Your task to perform on an android device: check battery use Image 0: 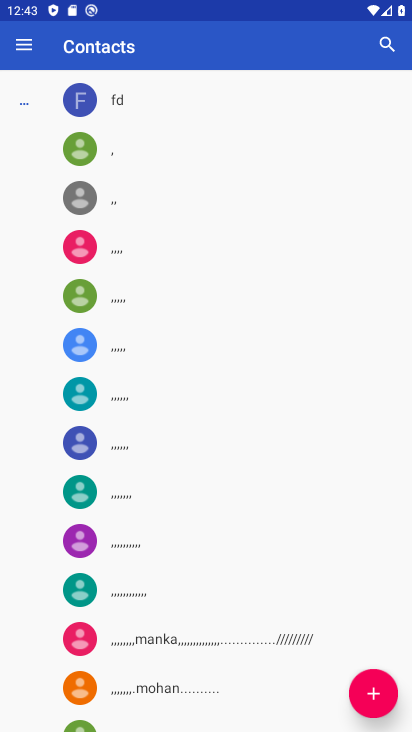
Step 0: press back button
Your task to perform on an android device: check battery use Image 1: 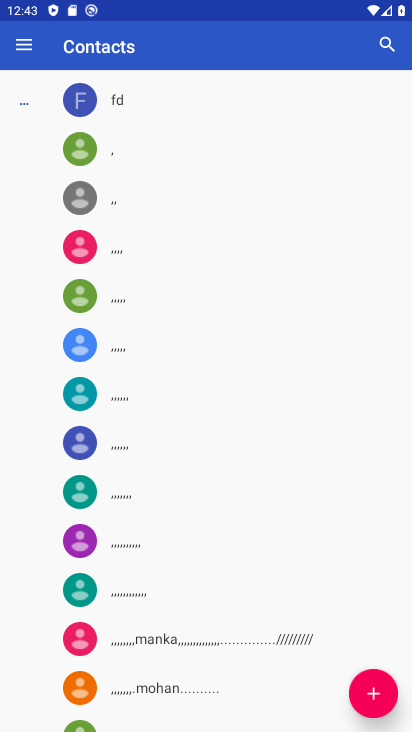
Step 1: press back button
Your task to perform on an android device: check battery use Image 2: 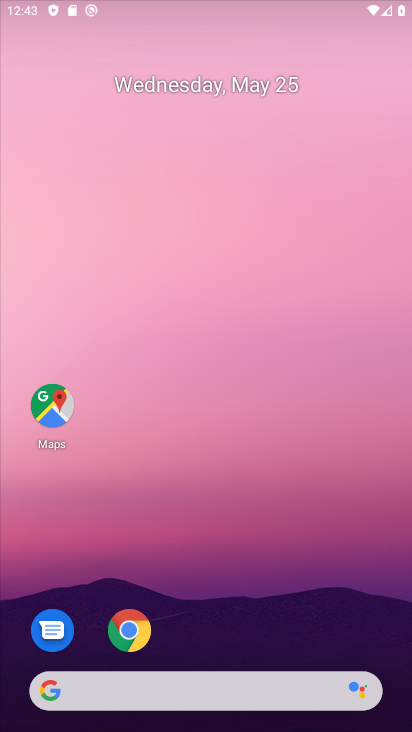
Step 2: press back button
Your task to perform on an android device: check battery use Image 3: 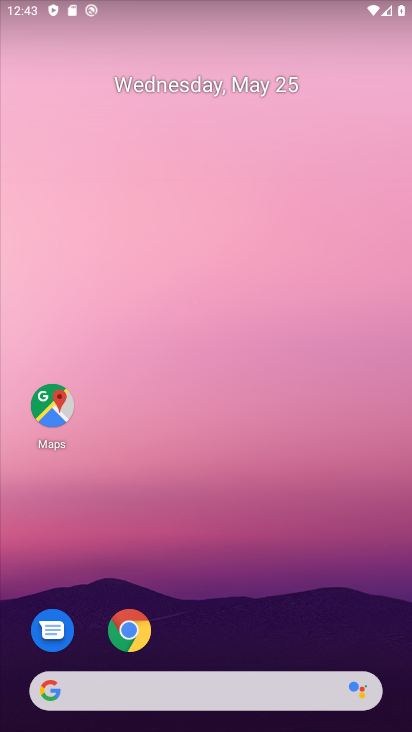
Step 3: drag from (272, 600) to (78, 4)
Your task to perform on an android device: check battery use Image 4: 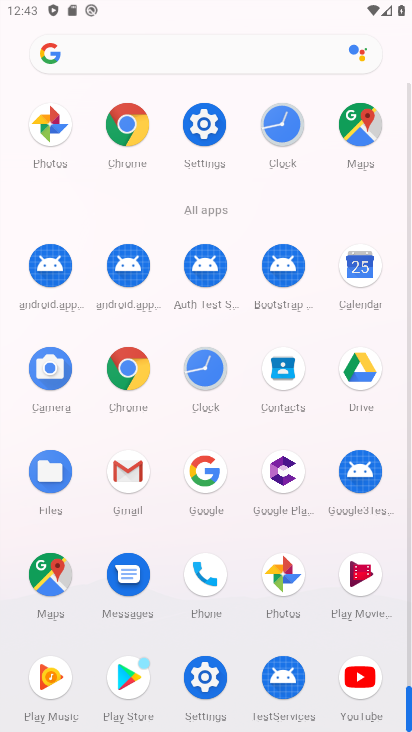
Step 4: click (197, 689)
Your task to perform on an android device: check battery use Image 5: 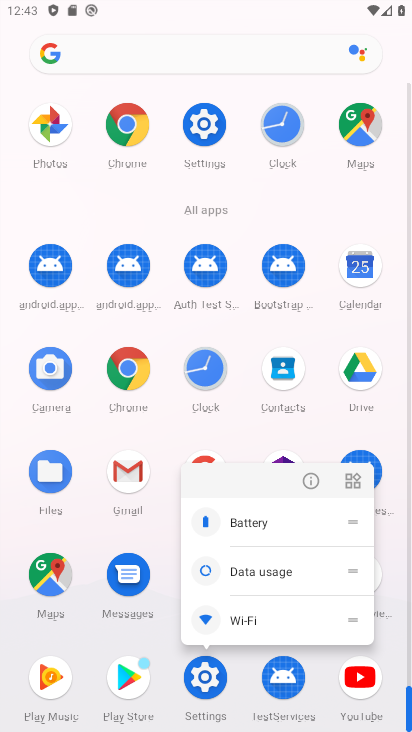
Step 5: click (196, 106)
Your task to perform on an android device: check battery use Image 6: 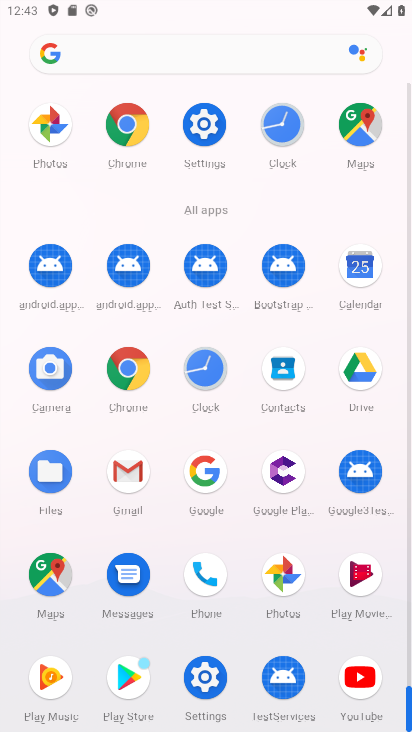
Step 6: click (190, 111)
Your task to perform on an android device: check battery use Image 7: 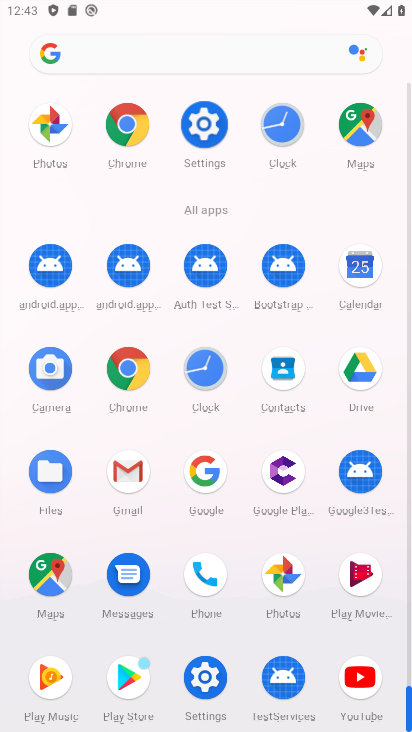
Step 7: click (189, 130)
Your task to perform on an android device: check battery use Image 8: 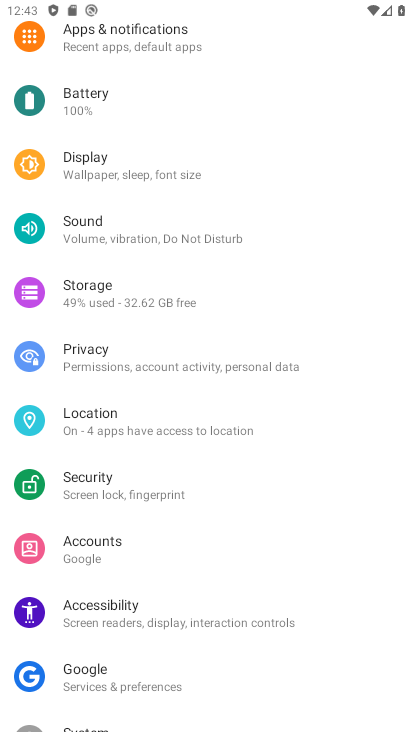
Step 8: click (78, 99)
Your task to perform on an android device: check battery use Image 9: 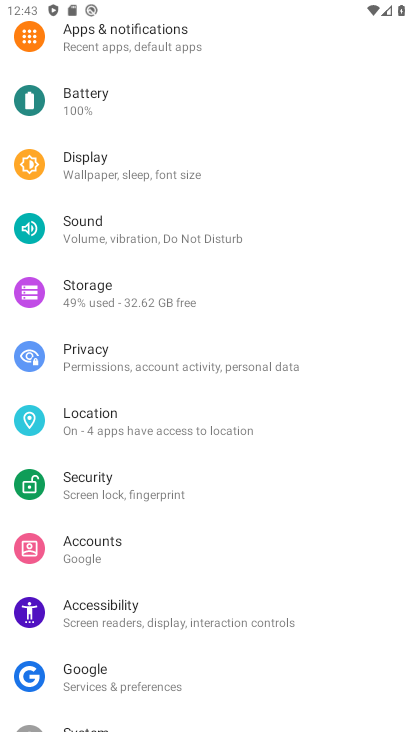
Step 9: click (87, 97)
Your task to perform on an android device: check battery use Image 10: 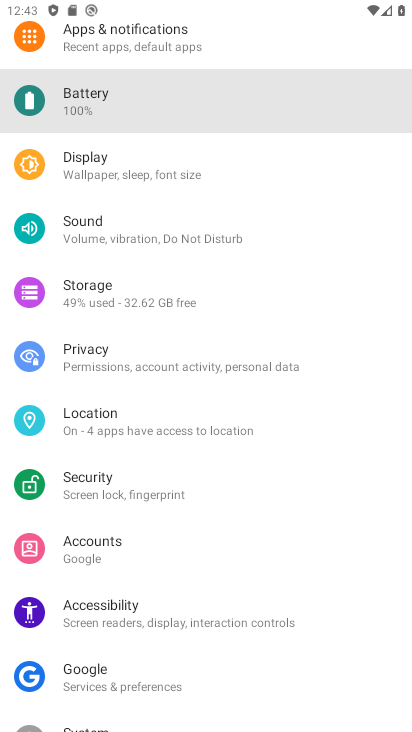
Step 10: click (90, 97)
Your task to perform on an android device: check battery use Image 11: 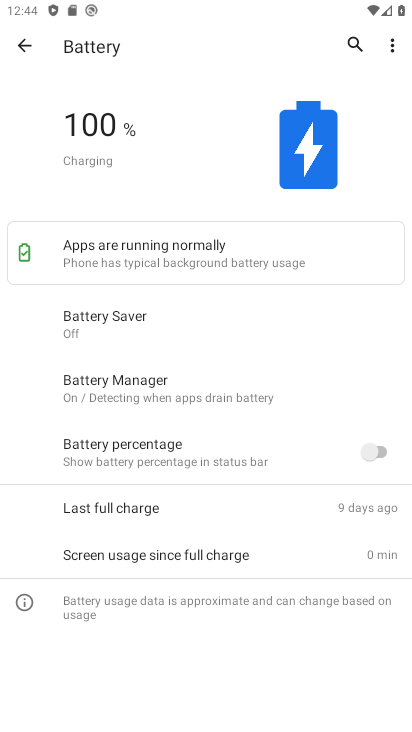
Step 11: click (92, 110)
Your task to perform on an android device: check battery use Image 12: 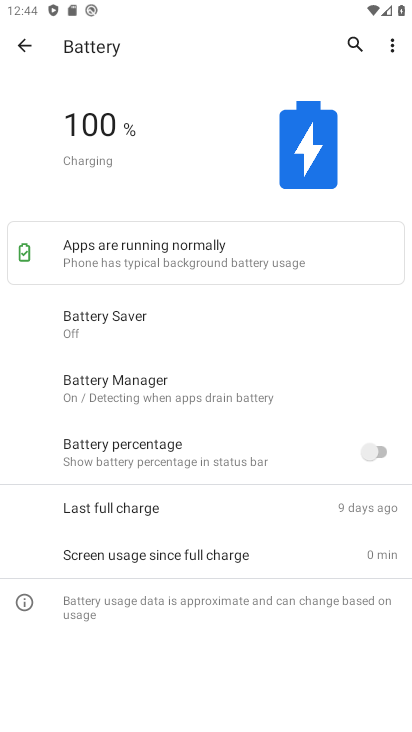
Step 12: click (88, 113)
Your task to perform on an android device: check battery use Image 13: 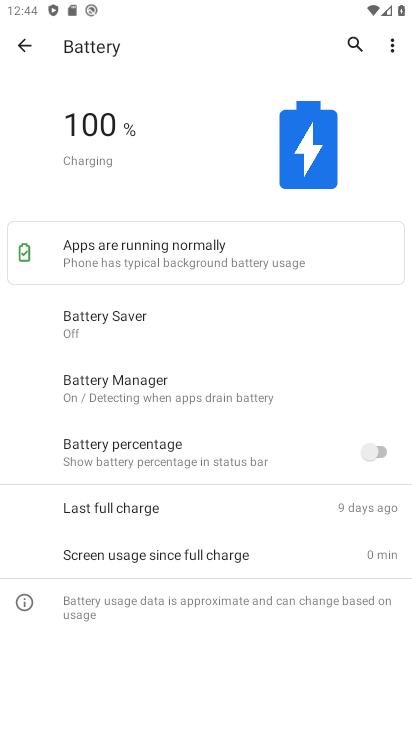
Step 13: task complete